Your task to perform on an android device: set the stopwatch Image 0: 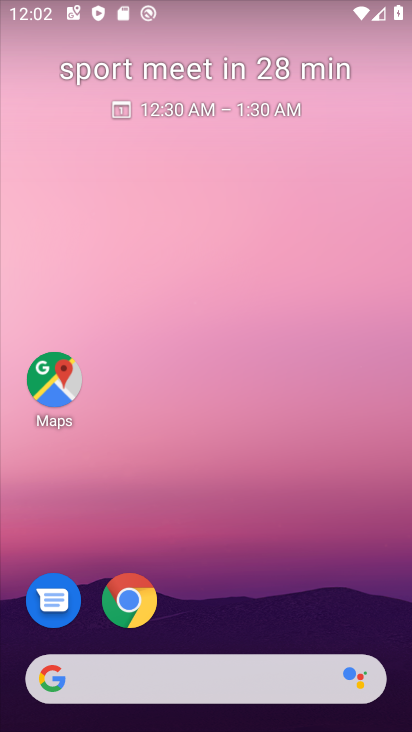
Step 0: drag from (181, 471) to (243, 36)
Your task to perform on an android device: set the stopwatch Image 1: 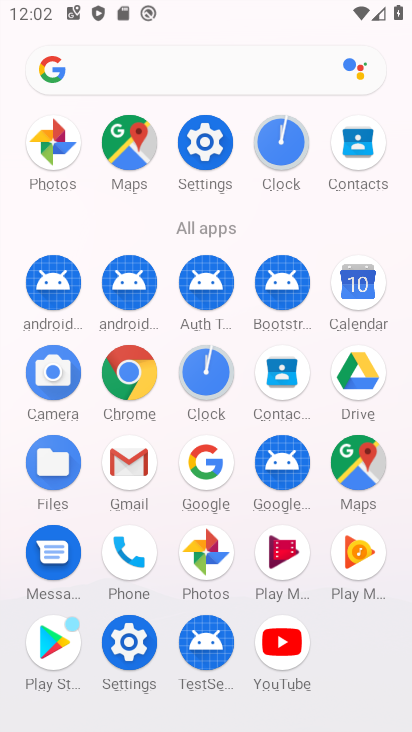
Step 1: click (295, 138)
Your task to perform on an android device: set the stopwatch Image 2: 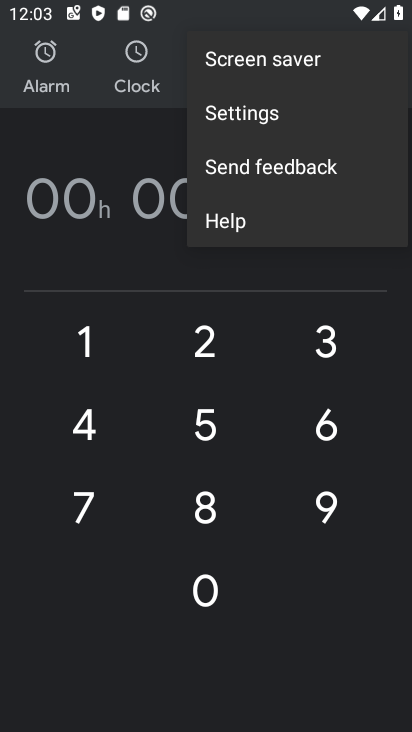
Step 2: click (147, 46)
Your task to perform on an android device: set the stopwatch Image 3: 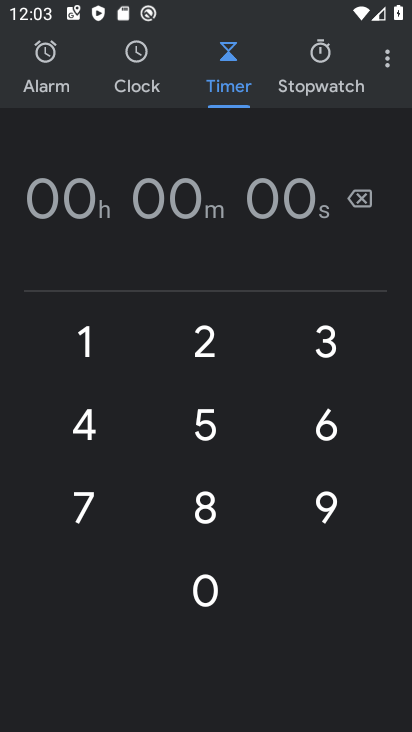
Step 3: click (312, 60)
Your task to perform on an android device: set the stopwatch Image 4: 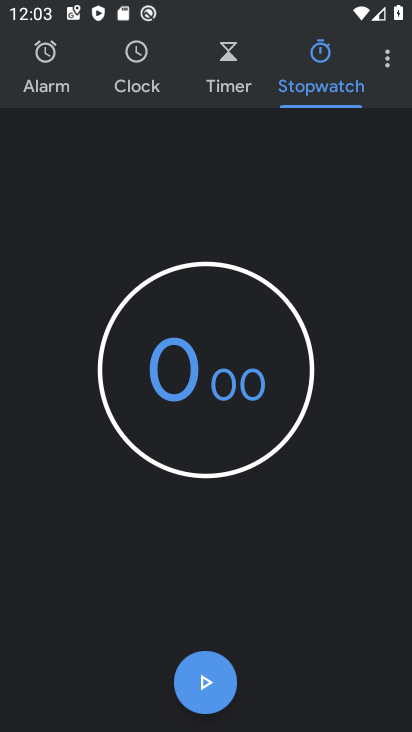
Step 4: click (213, 669)
Your task to perform on an android device: set the stopwatch Image 5: 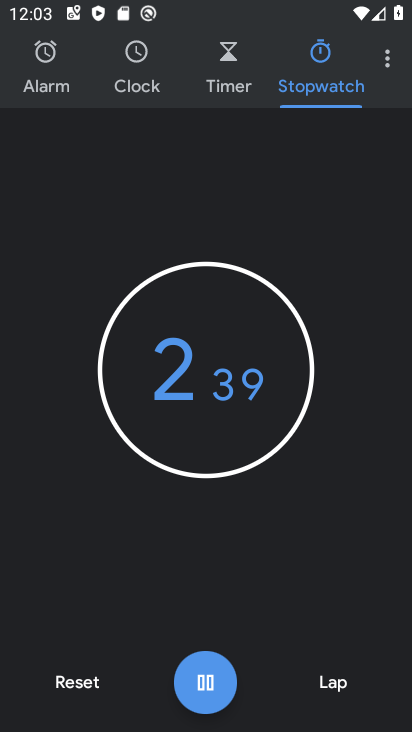
Step 5: task complete